Your task to perform on an android device: turn on improve location accuracy Image 0: 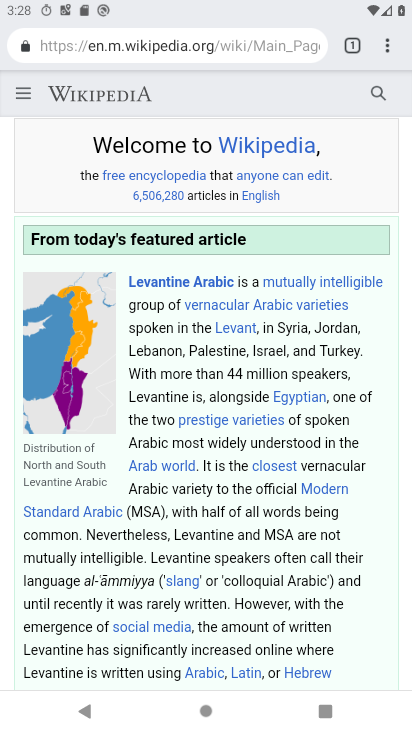
Step 0: press home button
Your task to perform on an android device: turn on improve location accuracy Image 1: 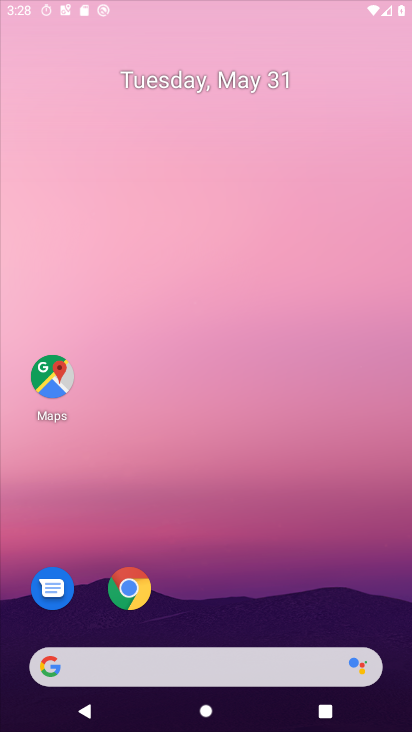
Step 1: drag from (202, 578) to (260, 149)
Your task to perform on an android device: turn on improve location accuracy Image 2: 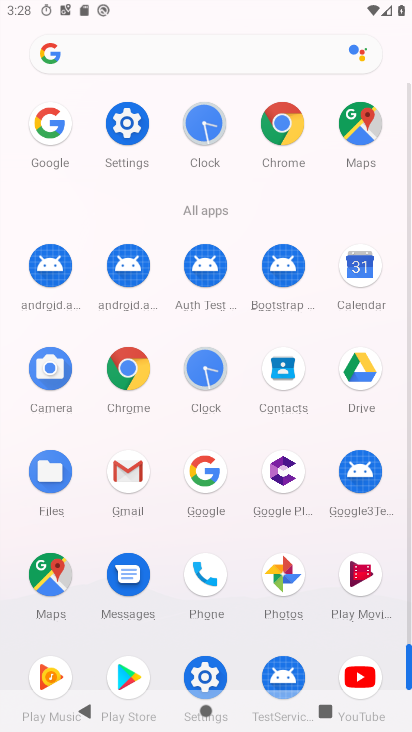
Step 2: click (138, 136)
Your task to perform on an android device: turn on improve location accuracy Image 3: 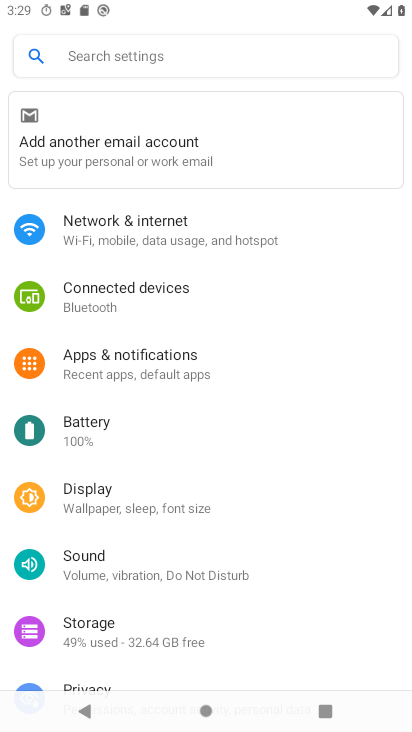
Step 3: drag from (154, 575) to (171, 269)
Your task to perform on an android device: turn on improve location accuracy Image 4: 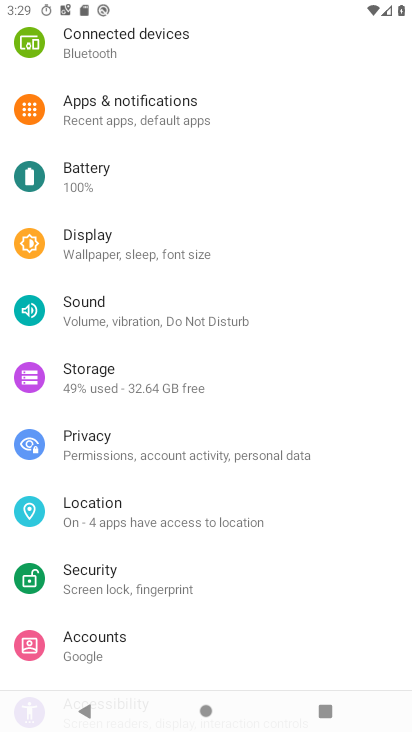
Step 4: click (137, 512)
Your task to perform on an android device: turn on improve location accuracy Image 5: 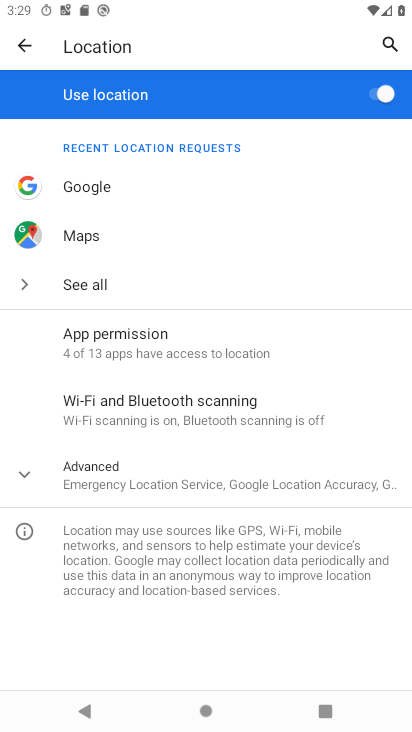
Step 5: drag from (229, 621) to (229, 232)
Your task to perform on an android device: turn on improve location accuracy Image 6: 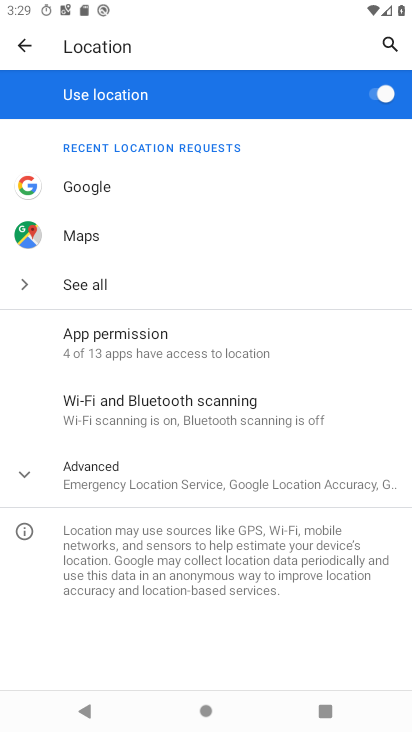
Step 6: click (204, 470)
Your task to perform on an android device: turn on improve location accuracy Image 7: 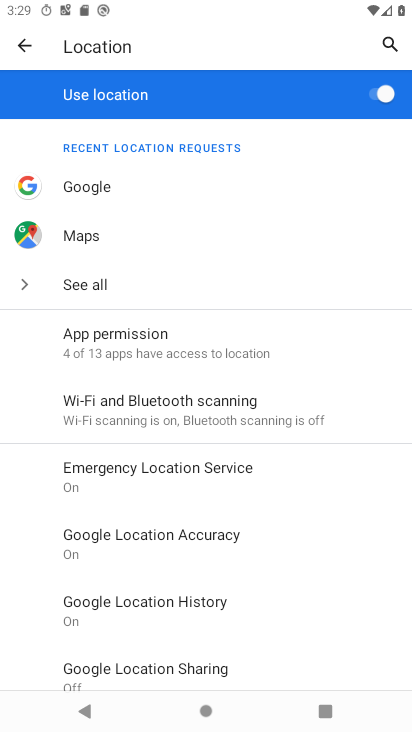
Step 7: click (206, 539)
Your task to perform on an android device: turn on improve location accuracy Image 8: 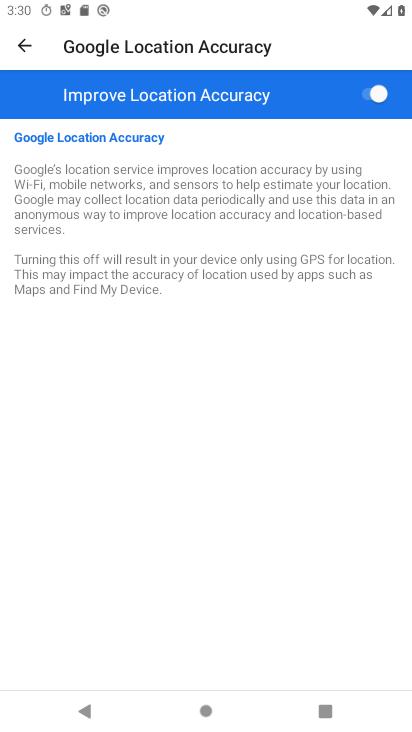
Step 8: task complete